Your task to perform on an android device: Open the stopwatch Image 0: 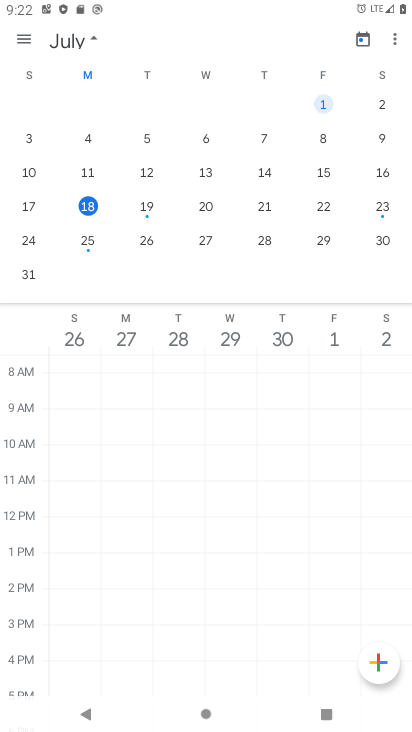
Step 0: press home button
Your task to perform on an android device: Open the stopwatch Image 1: 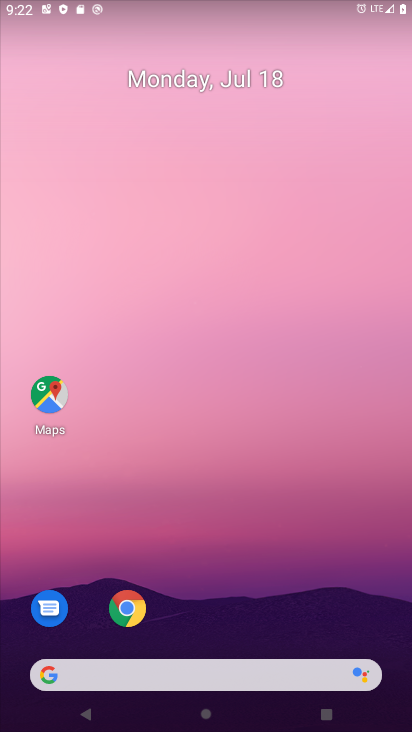
Step 1: drag from (231, 730) to (205, 154)
Your task to perform on an android device: Open the stopwatch Image 2: 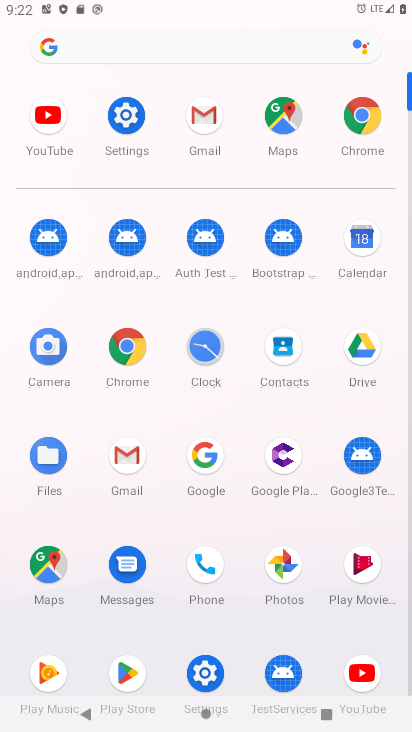
Step 2: click (204, 342)
Your task to perform on an android device: Open the stopwatch Image 3: 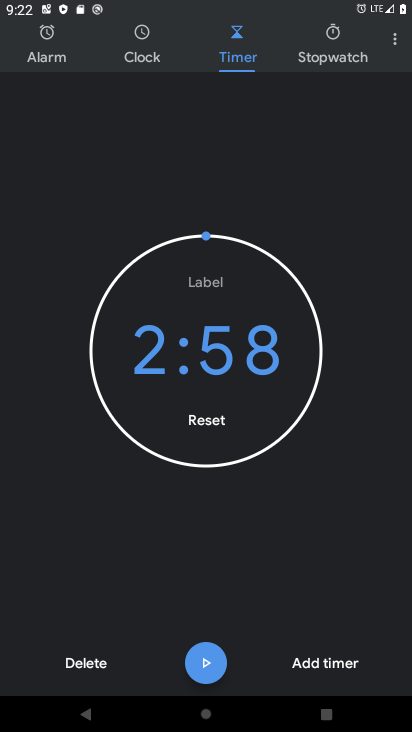
Step 3: click (314, 49)
Your task to perform on an android device: Open the stopwatch Image 4: 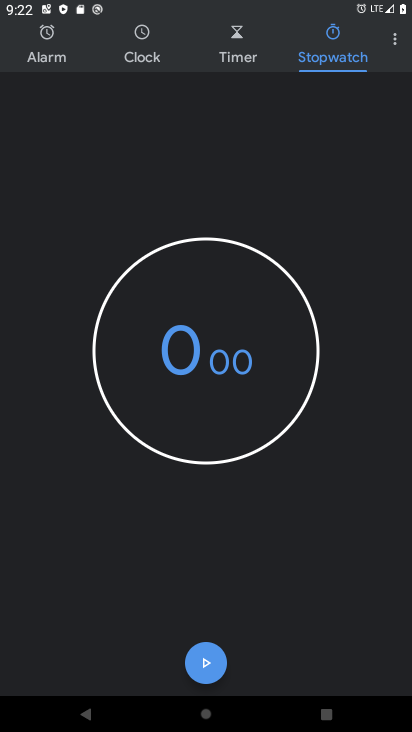
Step 4: task complete